Your task to perform on an android device: Open calendar and show me the fourth week of next month Image 0: 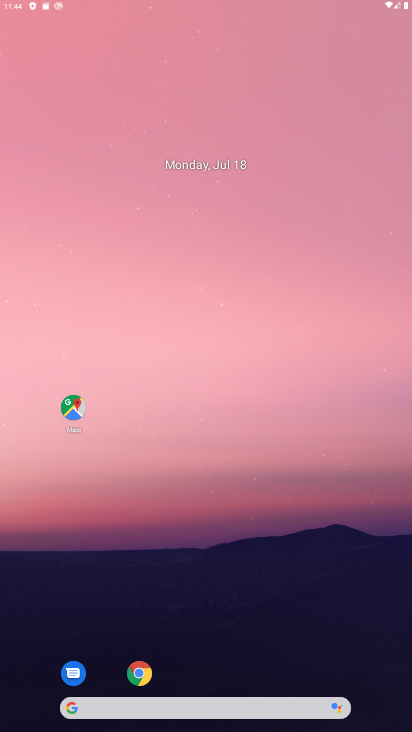
Step 0: press home button
Your task to perform on an android device: Open calendar and show me the fourth week of next month Image 1: 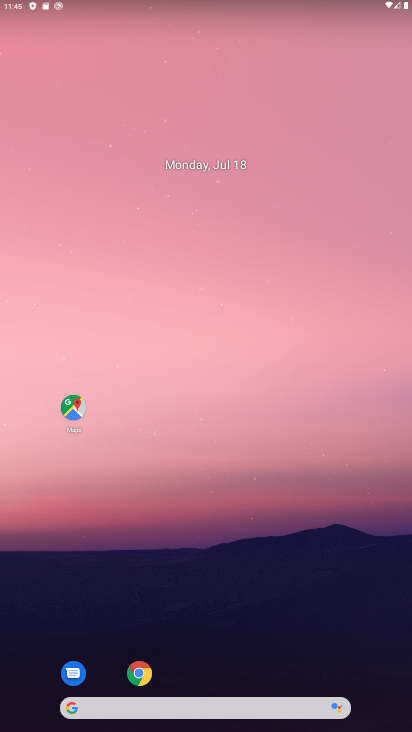
Step 1: drag from (223, 676) to (216, 27)
Your task to perform on an android device: Open calendar and show me the fourth week of next month Image 2: 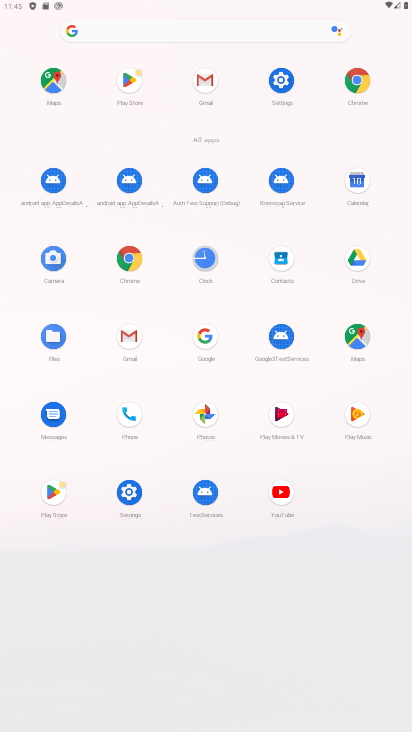
Step 2: click (354, 173)
Your task to perform on an android device: Open calendar and show me the fourth week of next month Image 3: 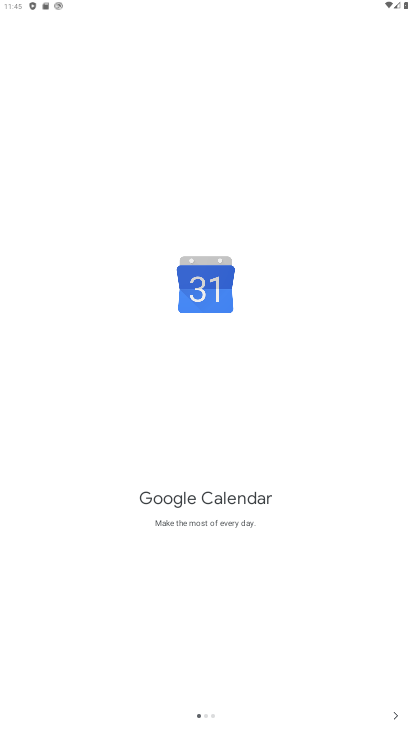
Step 3: click (386, 720)
Your task to perform on an android device: Open calendar and show me the fourth week of next month Image 4: 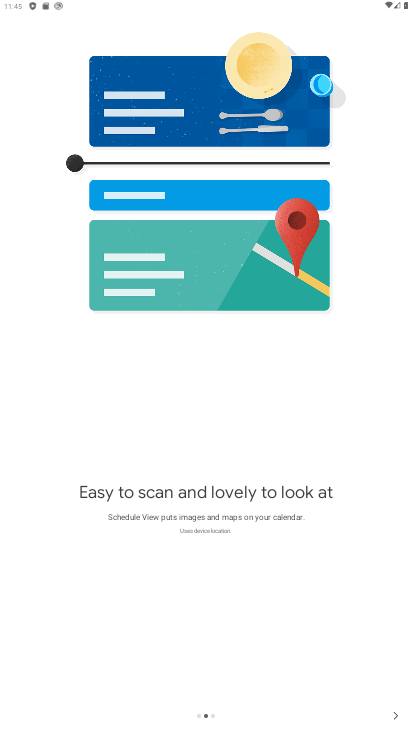
Step 4: click (390, 715)
Your task to perform on an android device: Open calendar and show me the fourth week of next month Image 5: 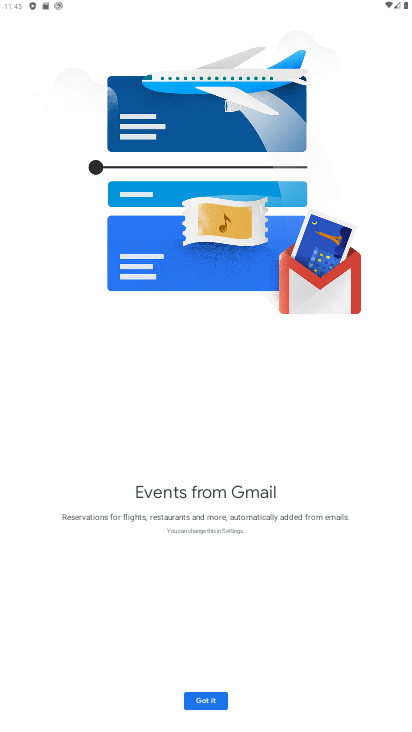
Step 5: click (209, 694)
Your task to perform on an android device: Open calendar and show me the fourth week of next month Image 6: 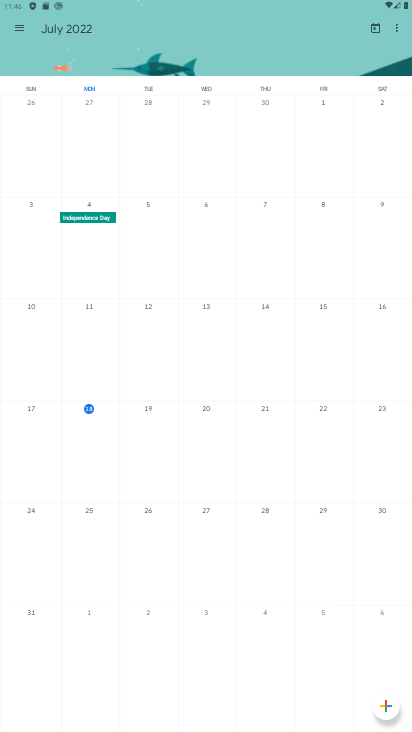
Step 6: click (20, 30)
Your task to perform on an android device: Open calendar and show me the fourth week of next month Image 7: 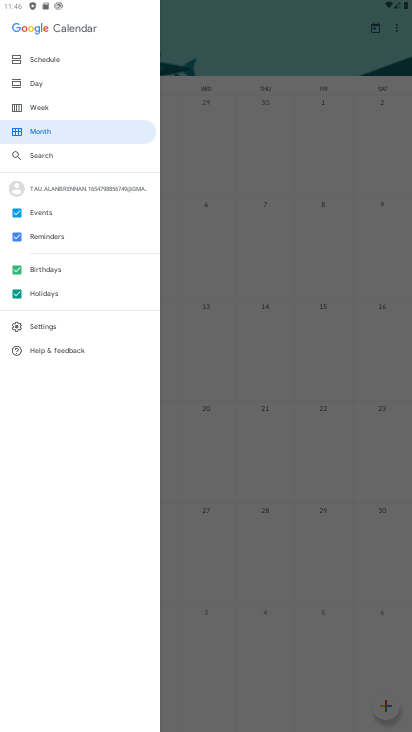
Step 7: click (48, 106)
Your task to perform on an android device: Open calendar and show me the fourth week of next month Image 8: 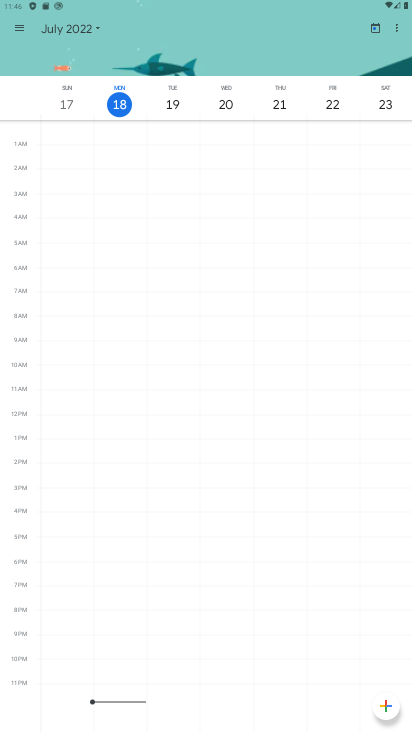
Step 8: click (19, 29)
Your task to perform on an android device: Open calendar and show me the fourth week of next month Image 9: 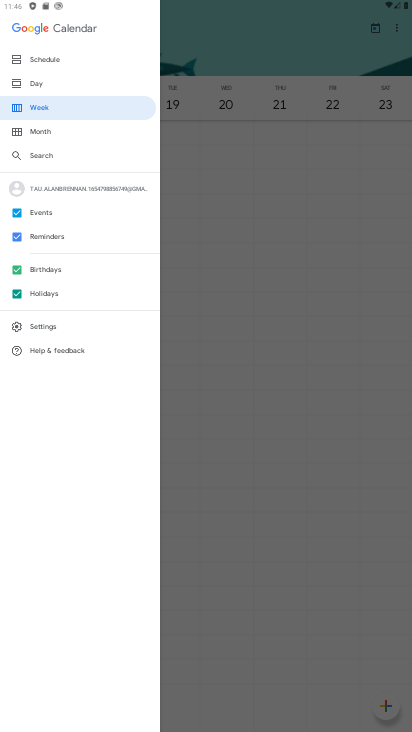
Step 9: click (54, 104)
Your task to perform on an android device: Open calendar and show me the fourth week of next month Image 10: 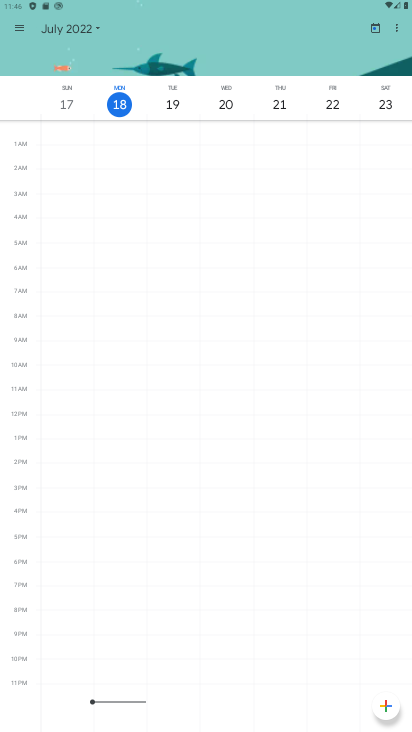
Step 10: click (96, 32)
Your task to perform on an android device: Open calendar and show me the fourth week of next month Image 11: 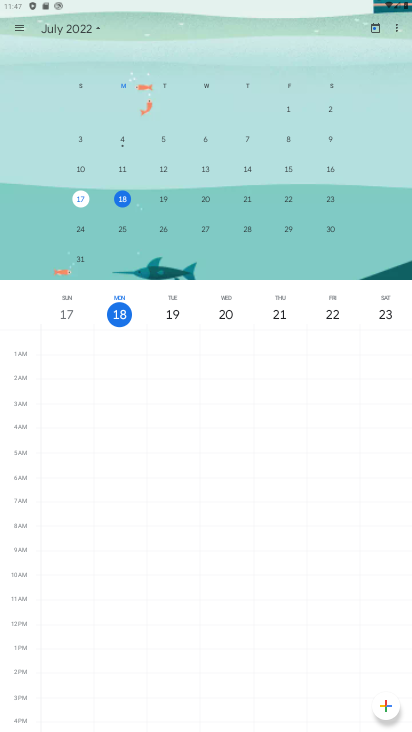
Step 11: drag from (332, 160) to (2, 164)
Your task to perform on an android device: Open calendar and show me the fourth week of next month Image 12: 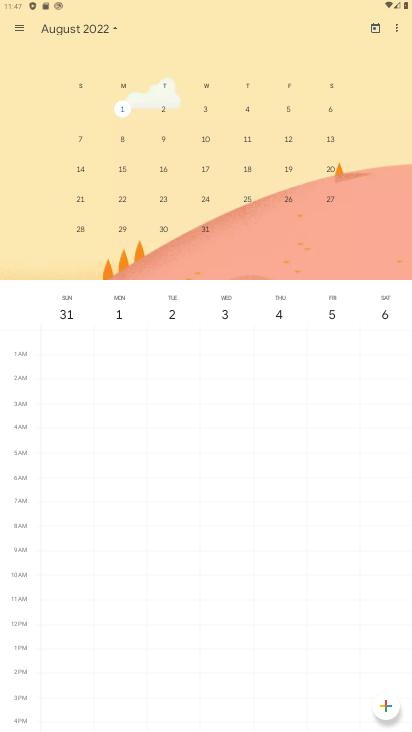
Step 12: click (80, 198)
Your task to perform on an android device: Open calendar and show me the fourth week of next month Image 13: 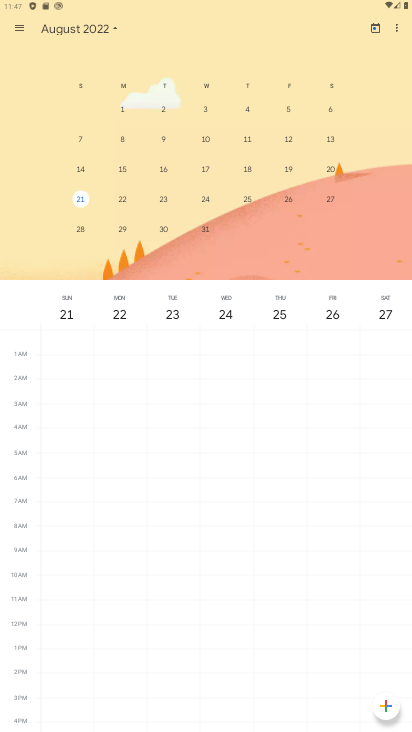
Step 13: task complete